Your task to perform on an android device: turn off translation in the chrome app Image 0: 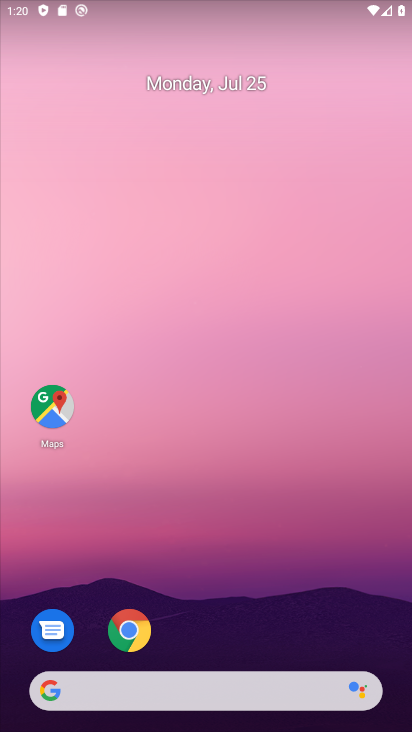
Step 0: click (146, 611)
Your task to perform on an android device: turn off translation in the chrome app Image 1: 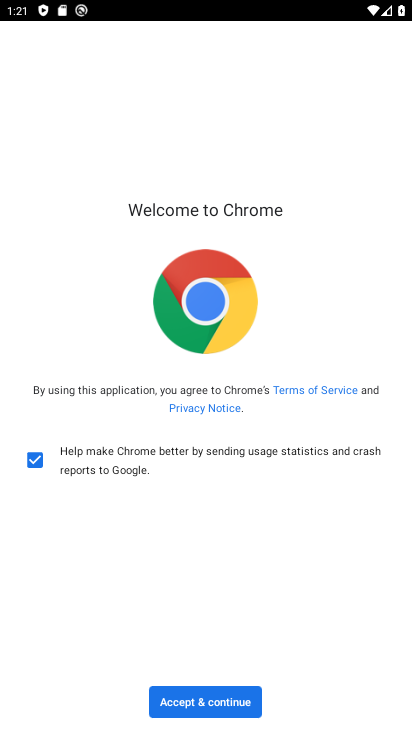
Step 1: click (252, 701)
Your task to perform on an android device: turn off translation in the chrome app Image 2: 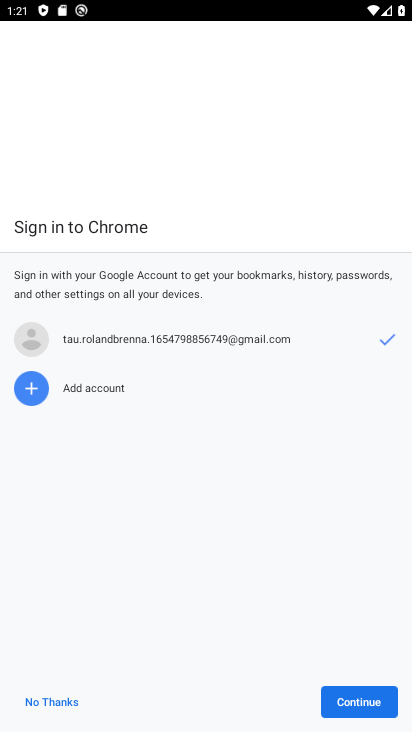
Step 2: click (374, 691)
Your task to perform on an android device: turn off translation in the chrome app Image 3: 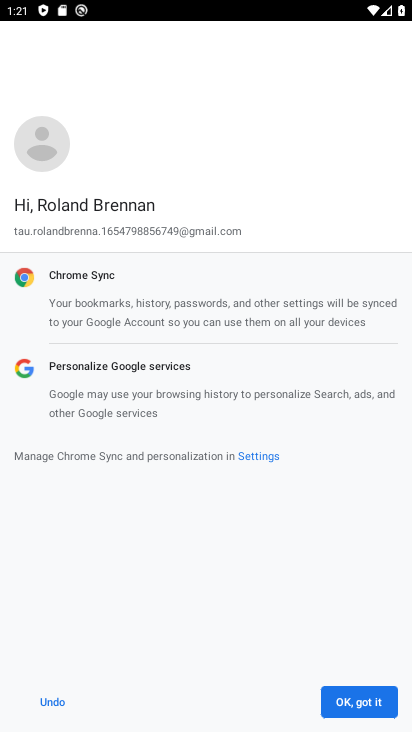
Step 3: click (374, 691)
Your task to perform on an android device: turn off translation in the chrome app Image 4: 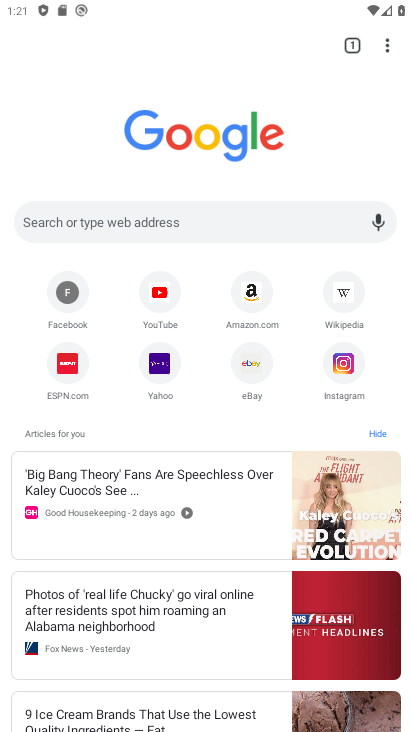
Step 4: click (391, 59)
Your task to perform on an android device: turn off translation in the chrome app Image 5: 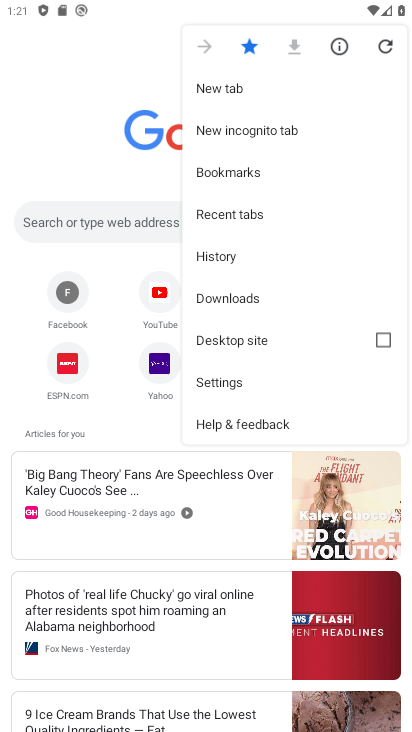
Step 5: click (224, 389)
Your task to perform on an android device: turn off translation in the chrome app Image 6: 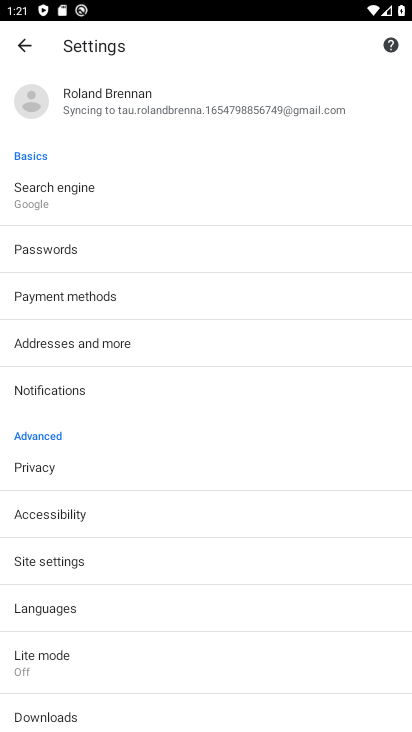
Step 6: click (143, 616)
Your task to perform on an android device: turn off translation in the chrome app Image 7: 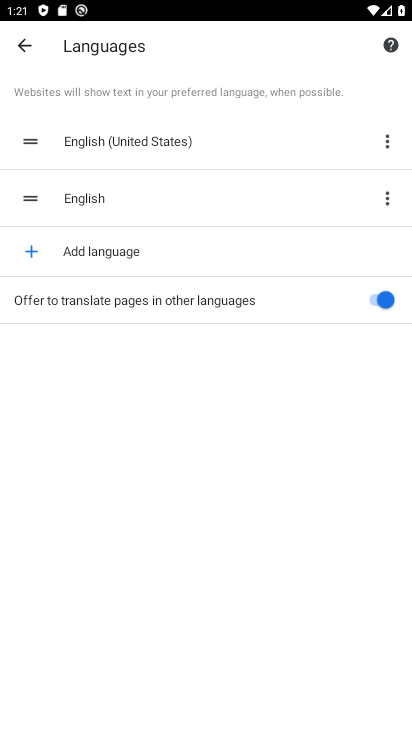
Step 7: click (373, 317)
Your task to perform on an android device: turn off translation in the chrome app Image 8: 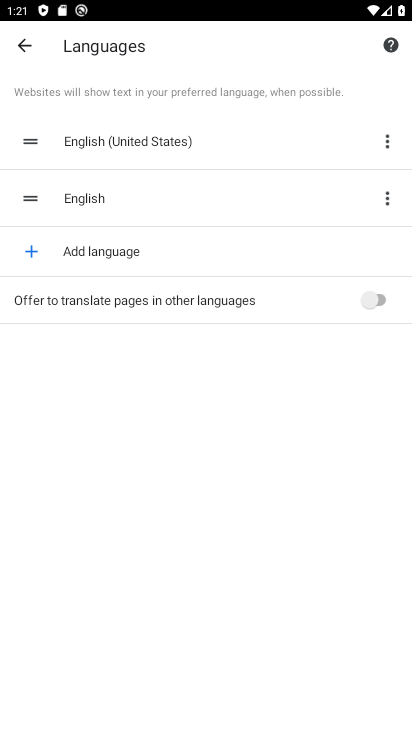
Step 8: task complete